Your task to perform on an android device: turn on airplane mode Image 0: 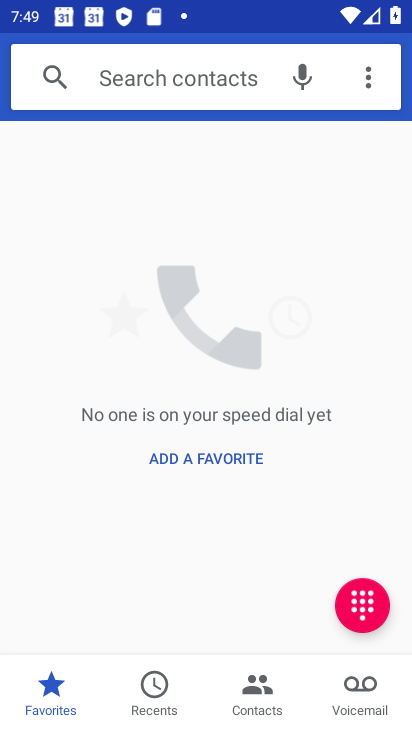
Step 0: press home button
Your task to perform on an android device: turn on airplane mode Image 1: 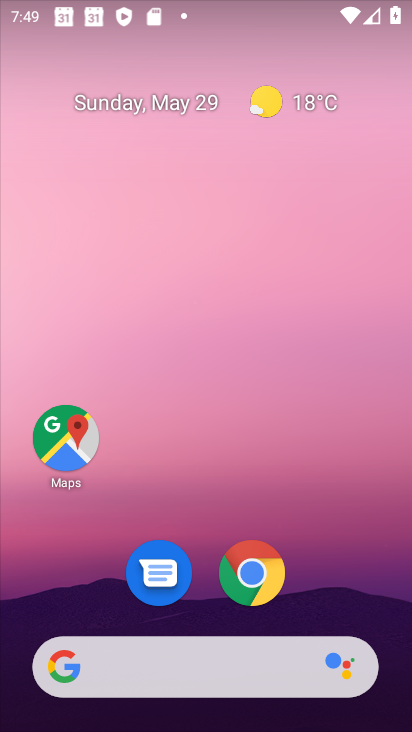
Step 1: drag from (84, 614) to (242, 143)
Your task to perform on an android device: turn on airplane mode Image 2: 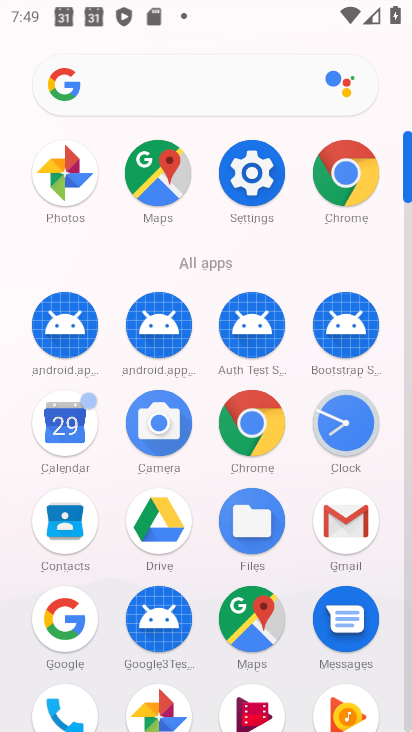
Step 2: drag from (158, 587) to (257, 285)
Your task to perform on an android device: turn on airplane mode Image 3: 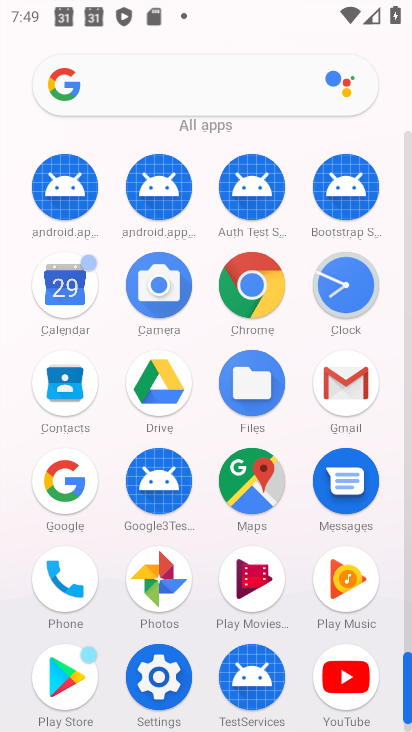
Step 3: click (155, 683)
Your task to perform on an android device: turn on airplane mode Image 4: 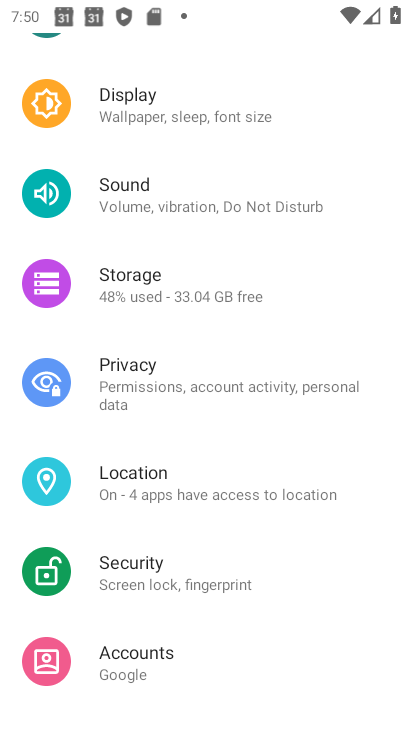
Step 4: drag from (264, 240) to (183, 698)
Your task to perform on an android device: turn on airplane mode Image 5: 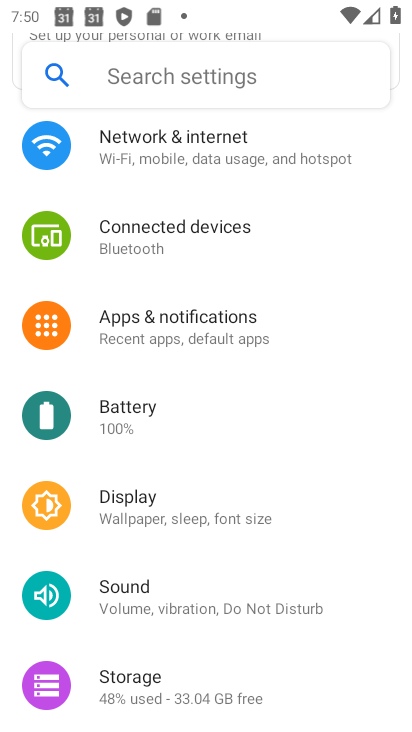
Step 5: drag from (261, 278) to (201, 655)
Your task to perform on an android device: turn on airplane mode Image 6: 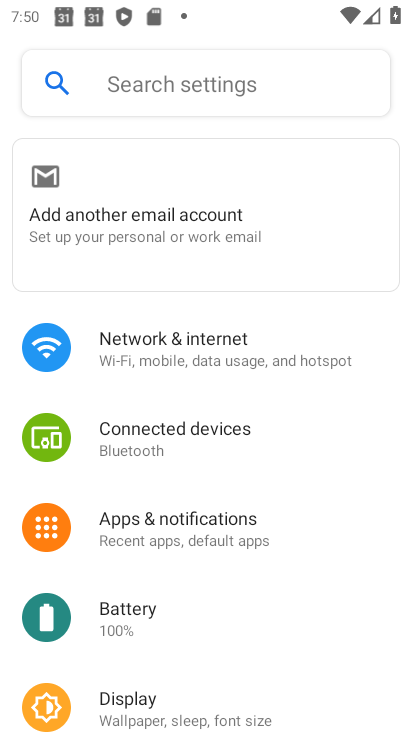
Step 6: click (214, 367)
Your task to perform on an android device: turn on airplane mode Image 7: 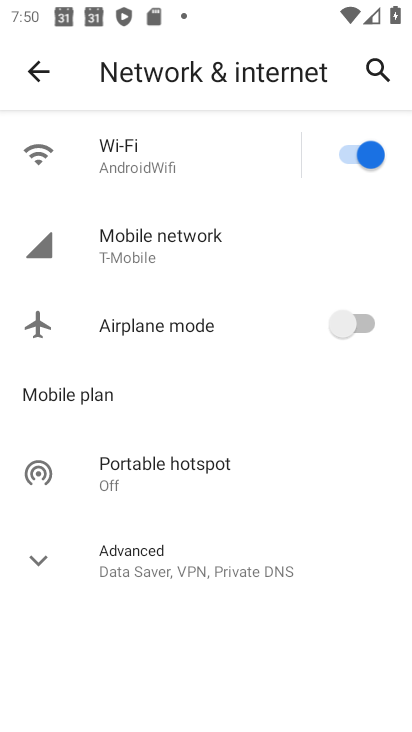
Step 7: click (376, 328)
Your task to perform on an android device: turn on airplane mode Image 8: 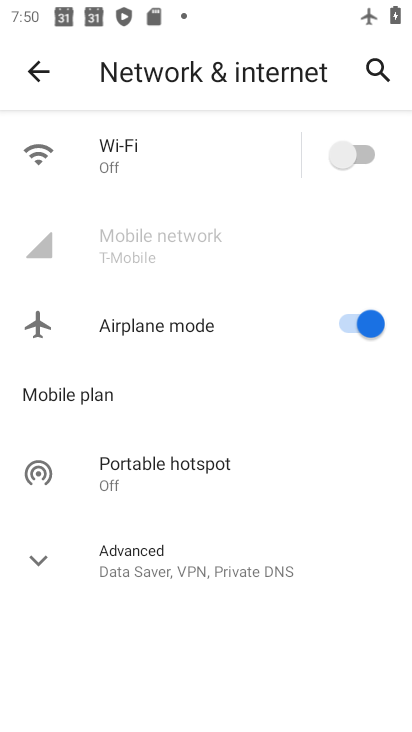
Step 8: task complete